Your task to perform on an android device: add a label to a message in the gmail app Image 0: 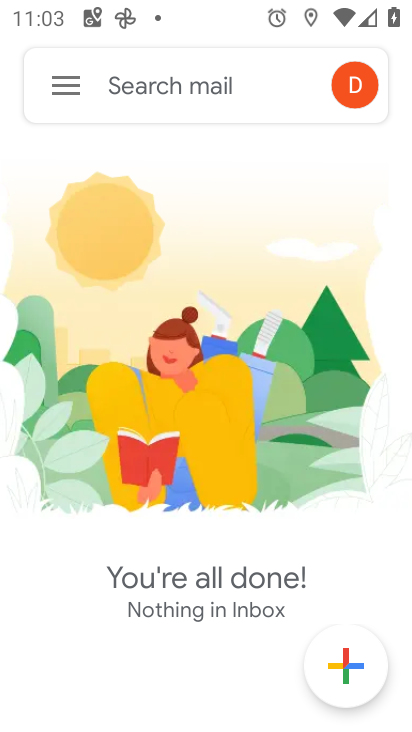
Step 0: press home button
Your task to perform on an android device: add a label to a message in the gmail app Image 1: 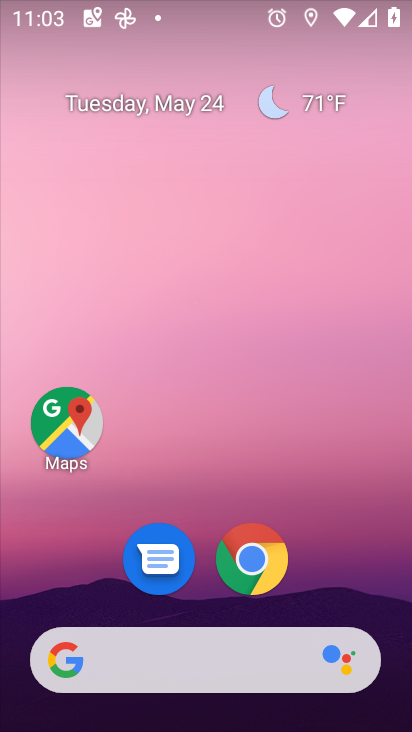
Step 1: drag from (380, 630) to (234, 78)
Your task to perform on an android device: add a label to a message in the gmail app Image 2: 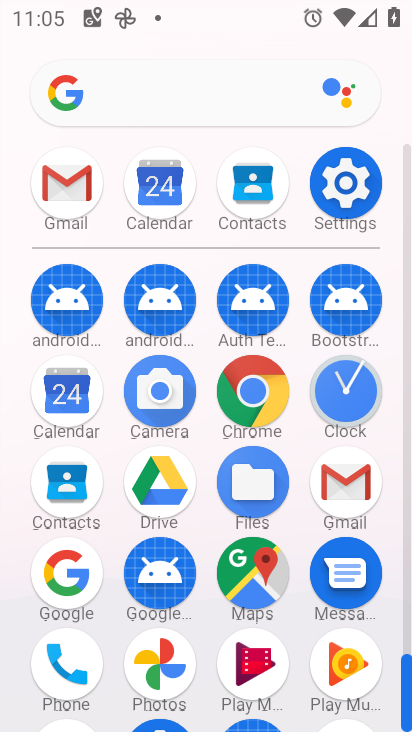
Step 2: click (342, 507)
Your task to perform on an android device: add a label to a message in the gmail app Image 3: 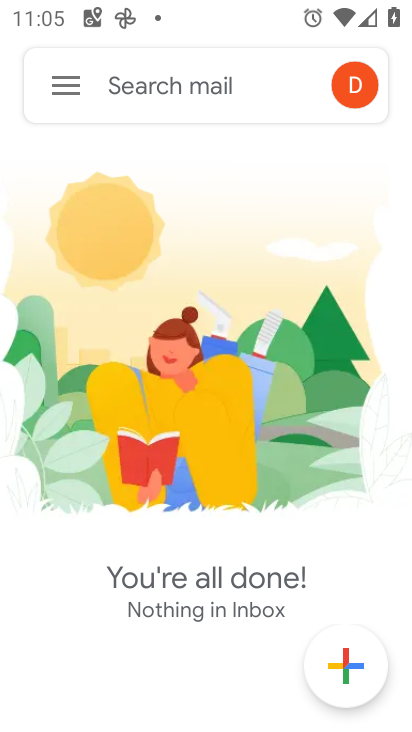
Step 3: task complete